Your task to perform on an android device: Open Android settings Image 0: 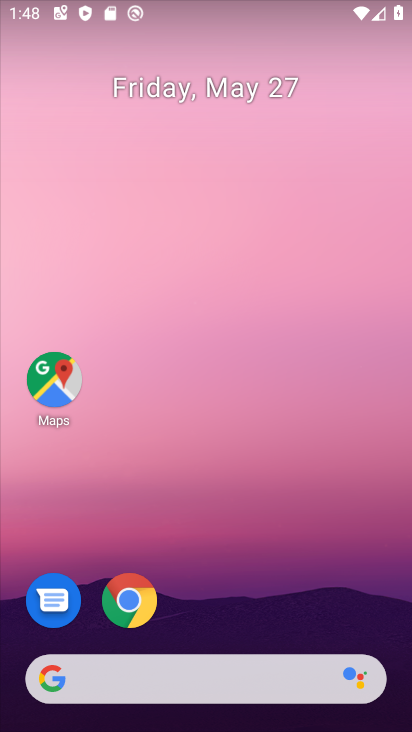
Step 0: drag from (193, 721) to (186, 58)
Your task to perform on an android device: Open Android settings Image 1: 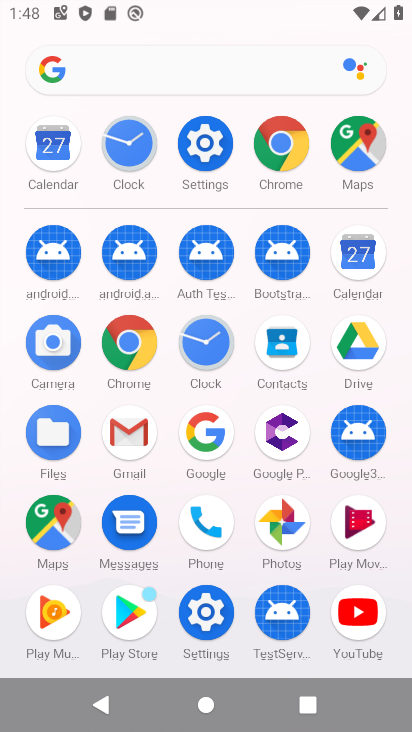
Step 1: click (199, 142)
Your task to perform on an android device: Open Android settings Image 2: 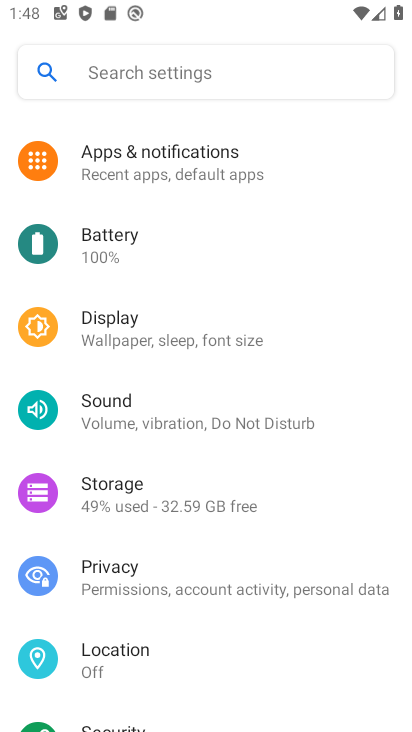
Step 2: task complete